Your task to perform on an android device: Show me the alarms in the clock app Image 0: 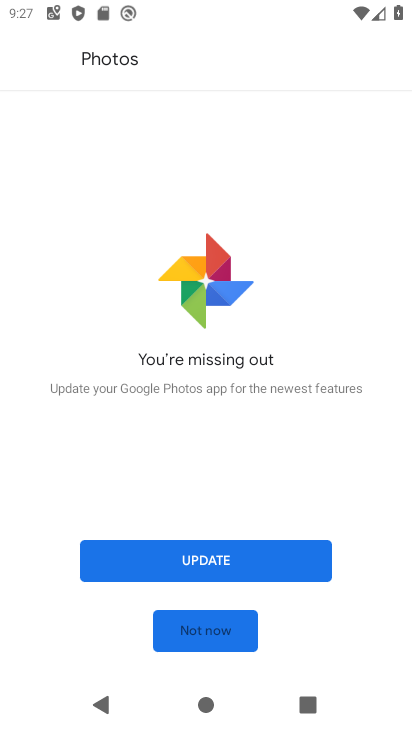
Step 0: press home button
Your task to perform on an android device: Show me the alarms in the clock app Image 1: 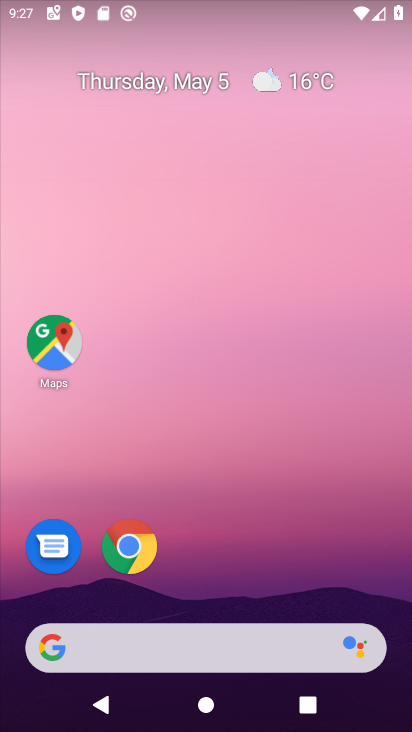
Step 1: drag from (155, 648) to (219, 18)
Your task to perform on an android device: Show me the alarms in the clock app Image 2: 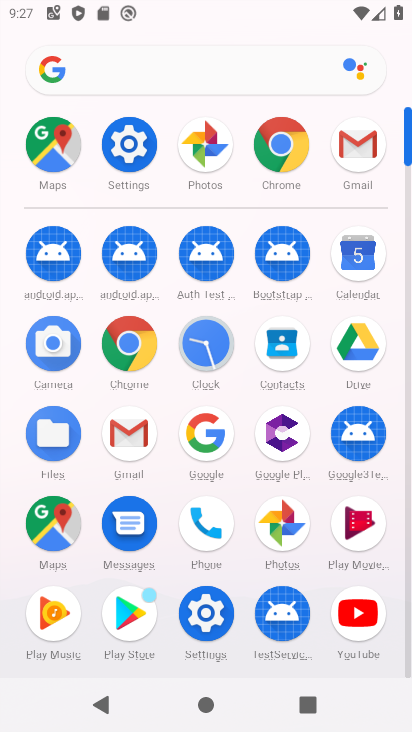
Step 2: click (193, 359)
Your task to perform on an android device: Show me the alarms in the clock app Image 3: 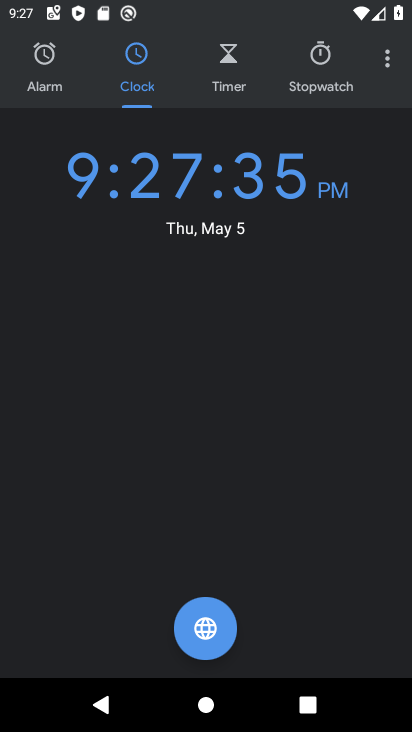
Step 3: click (44, 65)
Your task to perform on an android device: Show me the alarms in the clock app Image 4: 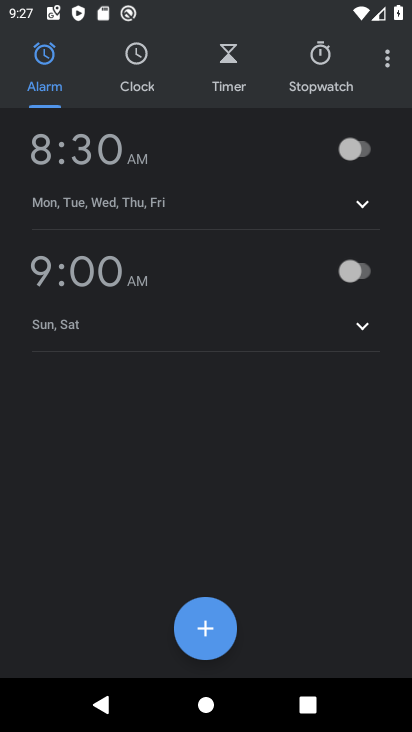
Step 4: task complete